Your task to perform on an android device: Open the calendar and show me this week's events? Image 0: 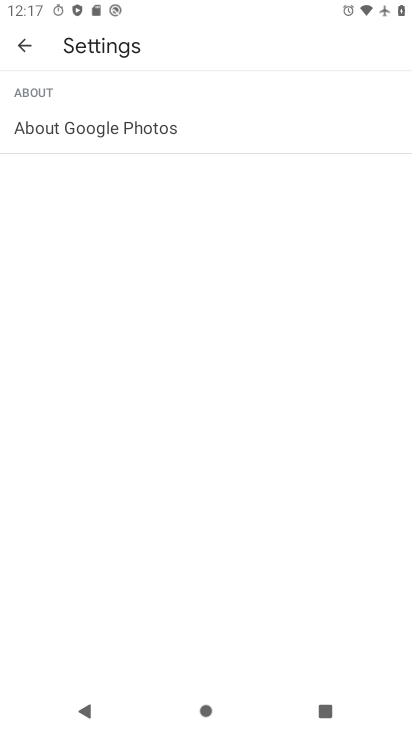
Step 0: press home button
Your task to perform on an android device: Open the calendar and show me this week's events? Image 1: 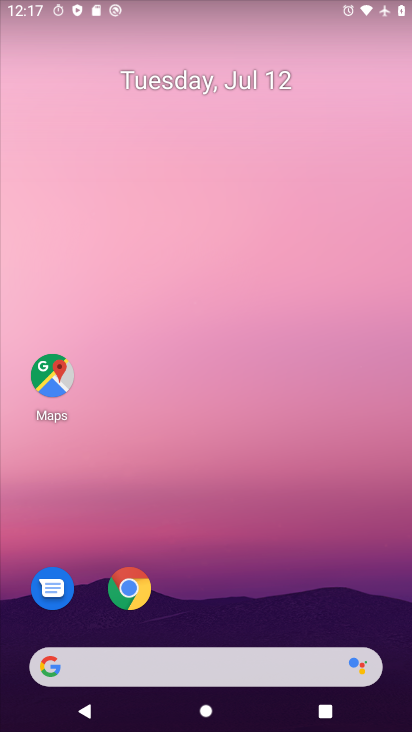
Step 1: drag from (139, 671) to (227, 80)
Your task to perform on an android device: Open the calendar and show me this week's events? Image 2: 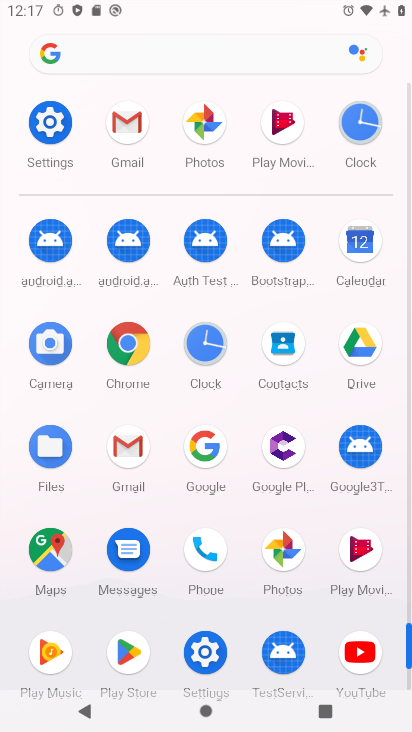
Step 2: click (363, 252)
Your task to perform on an android device: Open the calendar and show me this week's events? Image 3: 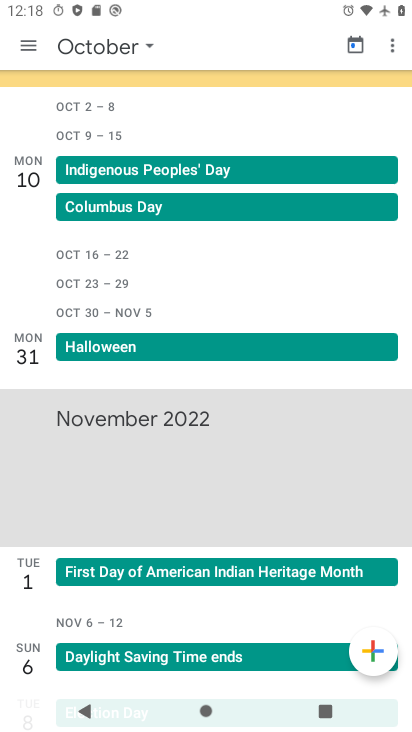
Step 3: click (107, 47)
Your task to perform on an android device: Open the calendar and show me this week's events? Image 4: 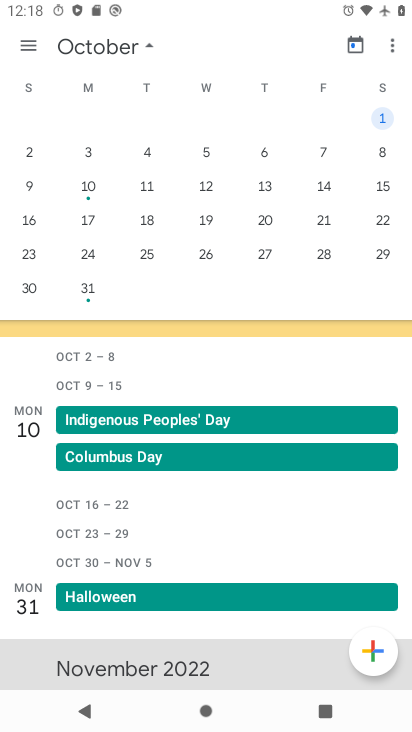
Step 4: drag from (76, 192) to (405, 171)
Your task to perform on an android device: Open the calendar and show me this week's events? Image 5: 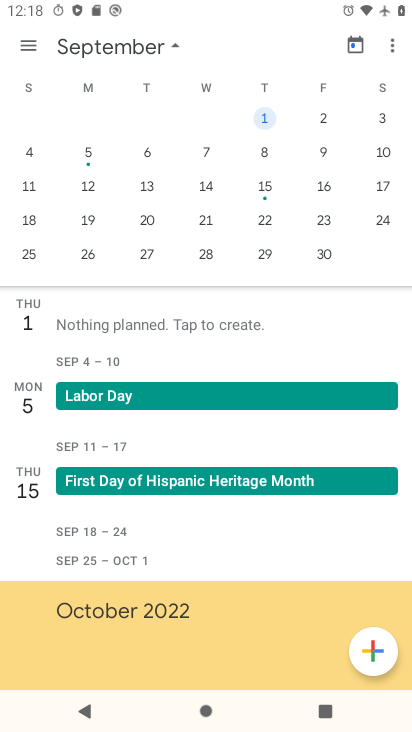
Step 5: drag from (76, 231) to (401, 213)
Your task to perform on an android device: Open the calendar and show me this week's events? Image 6: 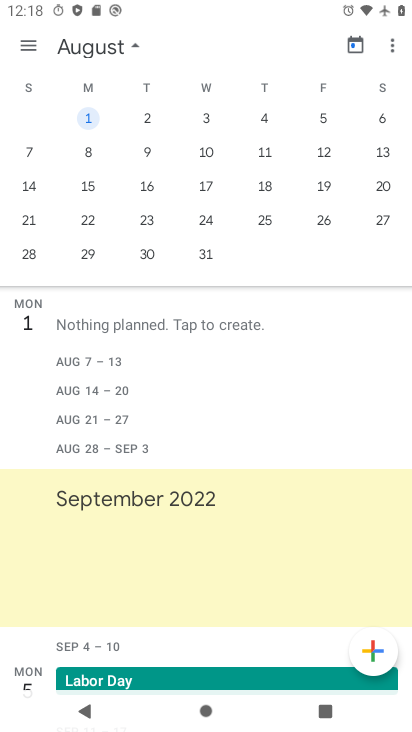
Step 6: drag from (70, 236) to (412, 226)
Your task to perform on an android device: Open the calendar and show me this week's events? Image 7: 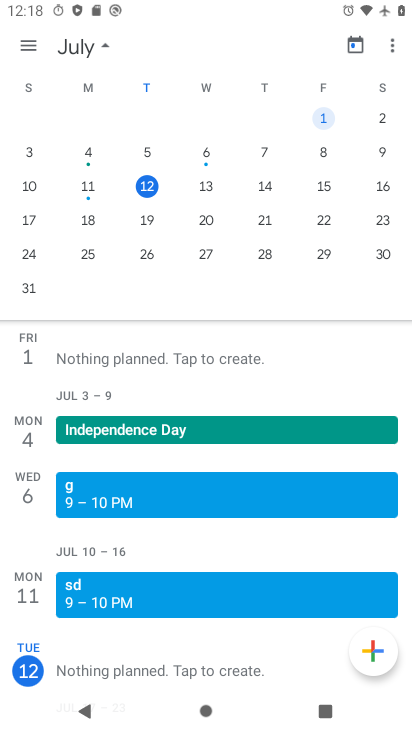
Step 7: click (143, 182)
Your task to perform on an android device: Open the calendar and show me this week's events? Image 8: 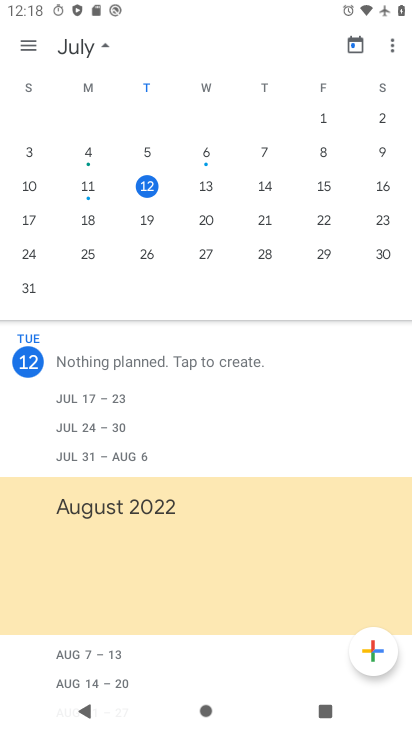
Step 8: click (23, 45)
Your task to perform on an android device: Open the calendar and show me this week's events? Image 9: 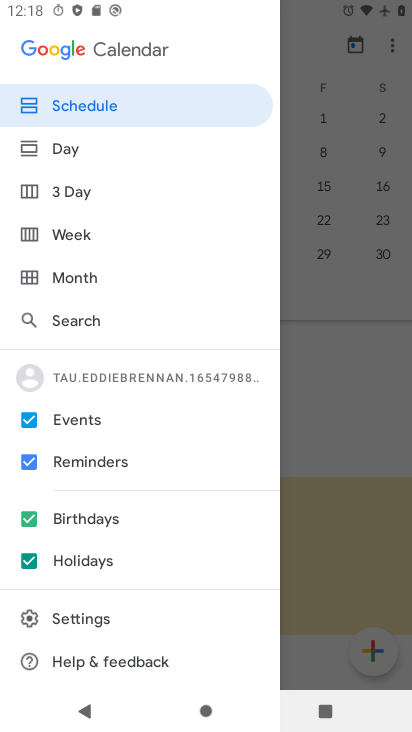
Step 9: click (69, 234)
Your task to perform on an android device: Open the calendar and show me this week's events? Image 10: 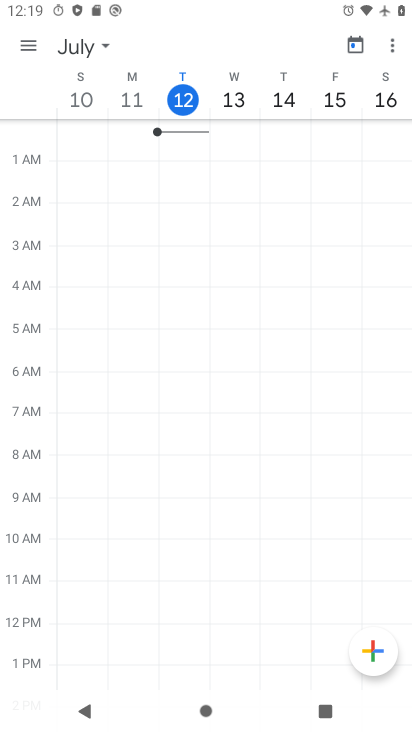
Step 10: task complete